Your task to perform on an android device: turn vacation reply on in the gmail app Image 0: 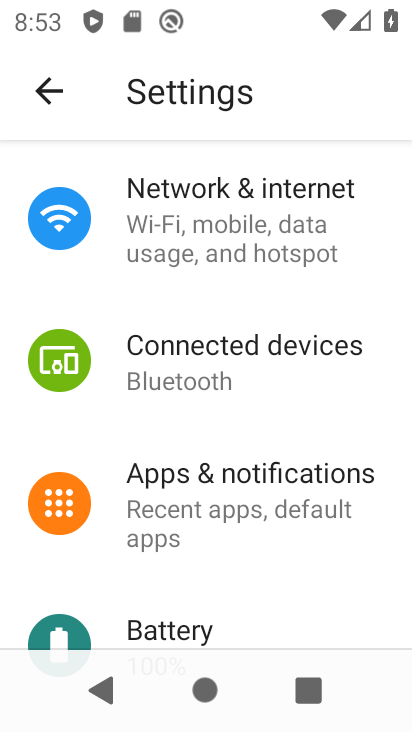
Step 0: press home button
Your task to perform on an android device: turn vacation reply on in the gmail app Image 1: 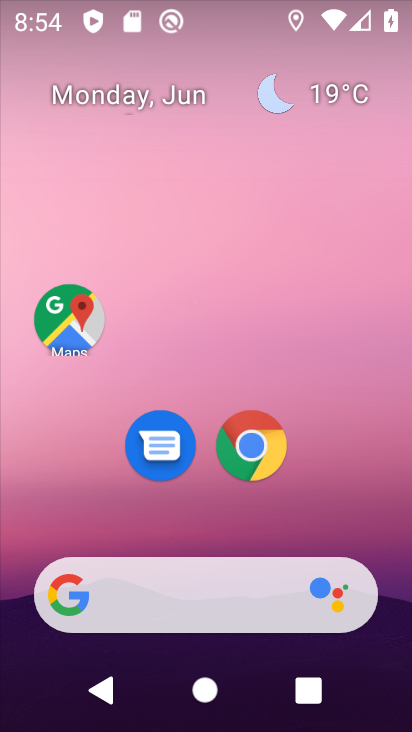
Step 1: drag from (199, 495) to (200, 33)
Your task to perform on an android device: turn vacation reply on in the gmail app Image 2: 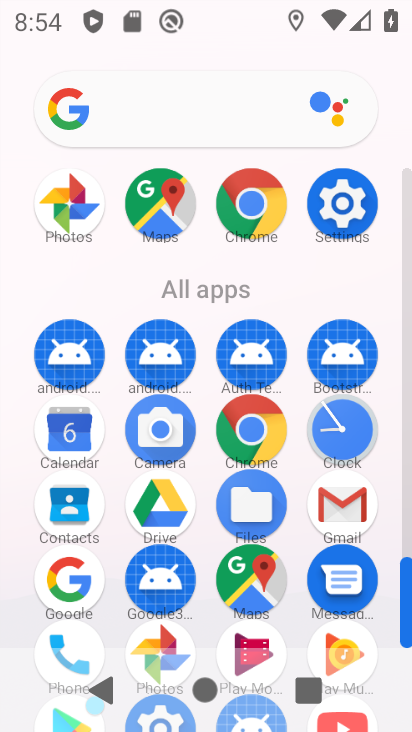
Step 2: click (334, 516)
Your task to perform on an android device: turn vacation reply on in the gmail app Image 3: 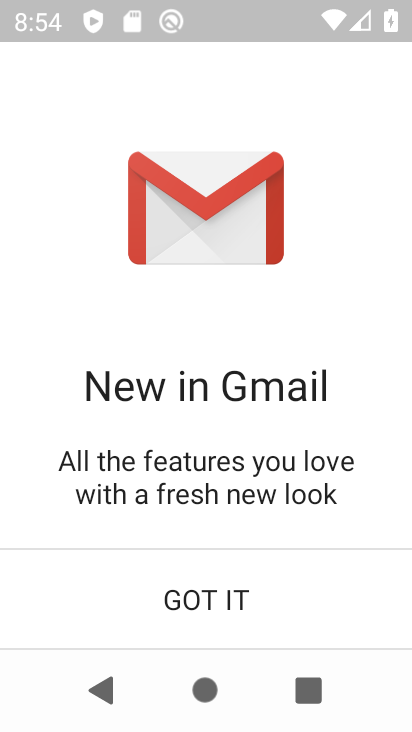
Step 3: click (243, 619)
Your task to perform on an android device: turn vacation reply on in the gmail app Image 4: 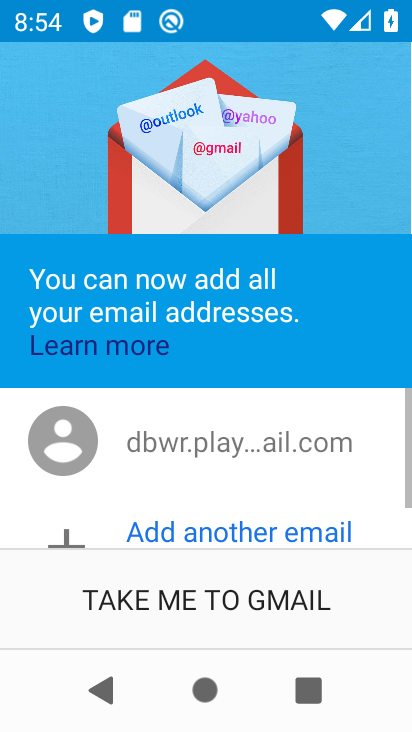
Step 4: click (230, 615)
Your task to perform on an android device: turn vacation reply on in the gmail app Image 5: 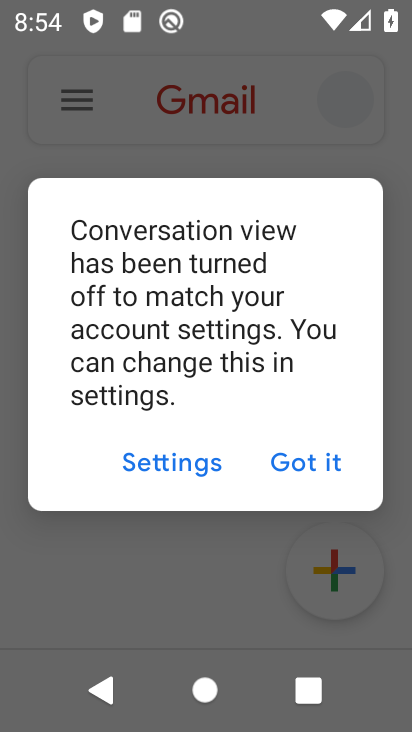
Step 5: click (284, 472)
Your task to perform on an android device: turn vacation reply on in the gmail app Image 6: 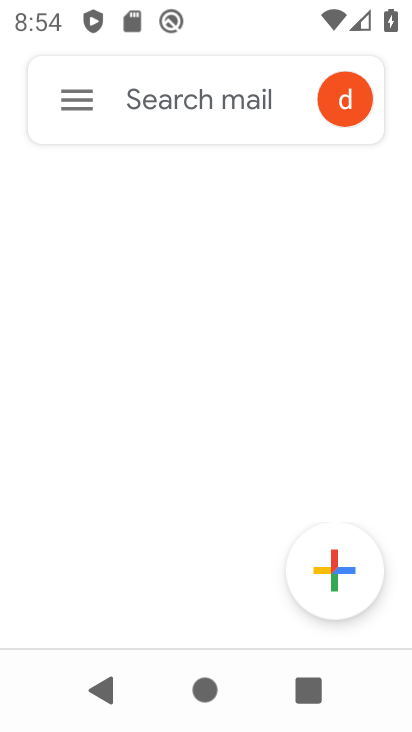
Step 6: click (72, 94)
Your task to perform on an android device: turn vacation reply on in the gmail app Image 7: 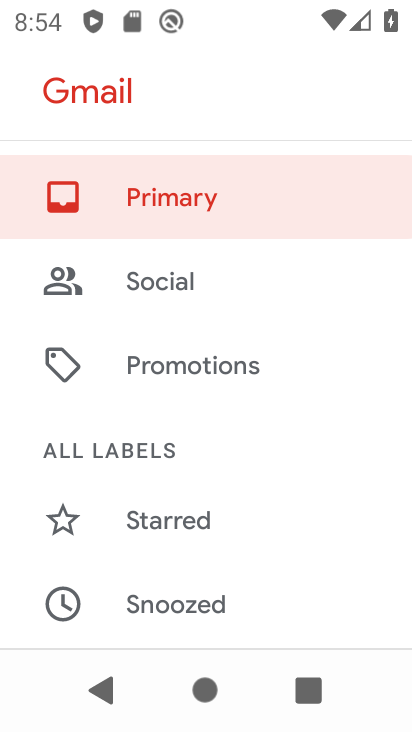
Step 7: drag from (193, 597) to (231, 68)
Your task to perform on an android device: turn vacation reply on in the gmail app Image 8: 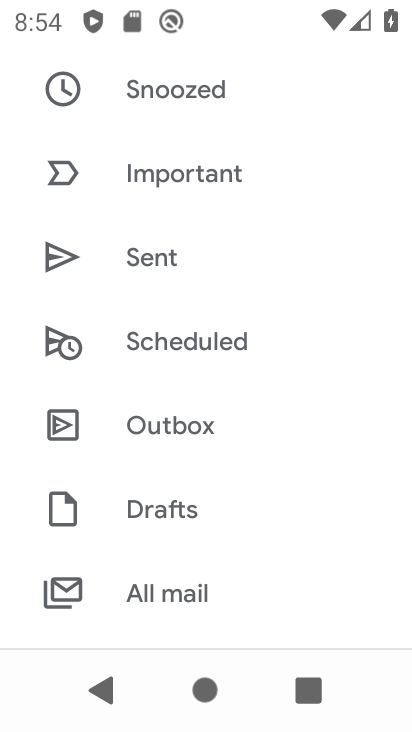
Step 8: drag from (206, 571) to (247, 27)
Your task to perform on an android device: turn vacation reply on in the gmail app Image 9: 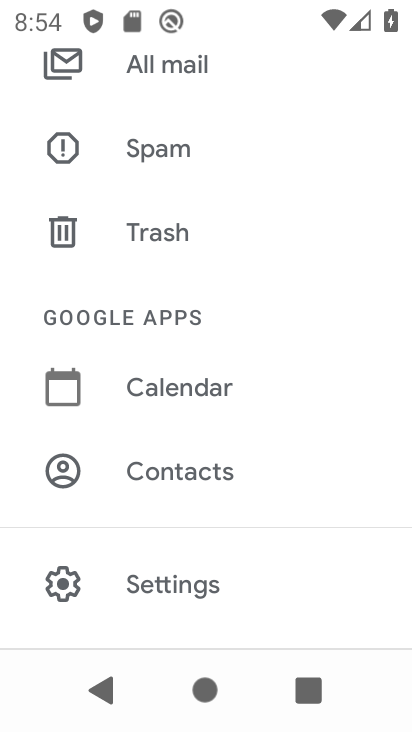
Step 9: drag from (201, 579) to (208, 83)
Your task to perform on an android device: turn vacation reply on in the gmail app Image 10: 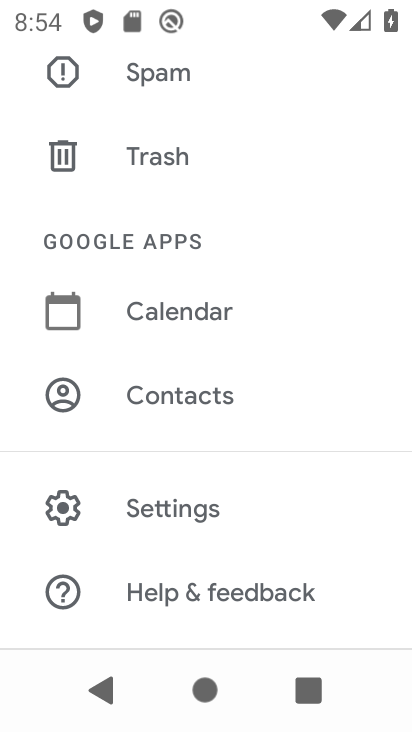
Step 10: click (173, 524)
Your task to perform on an android device: turn vacation reply on in the gmail app Image 11: 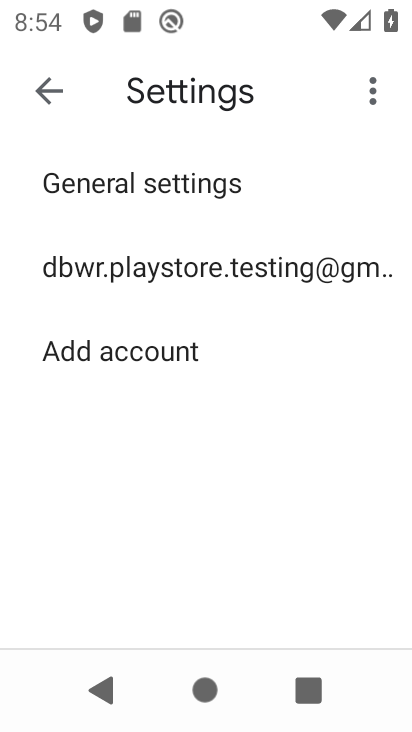
Step 11: click (253, 249)
Your task to perform on an android device: turn vacation reply on in the gmail app Image 12: 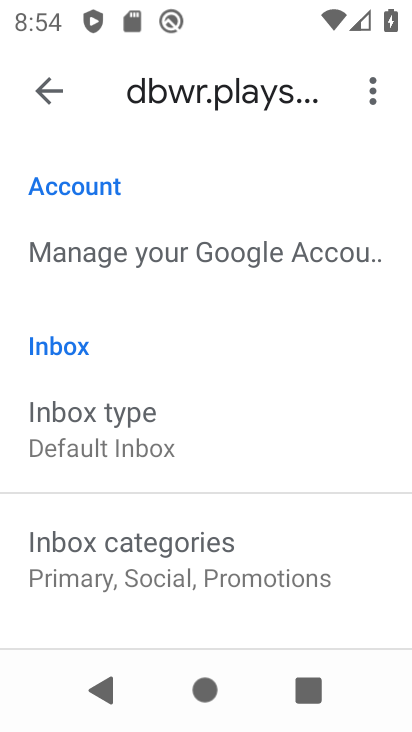
Step 12: drag from (243, 536) to (252, 59)
Your task to perform on an android device: turn vacation reply on in the gmail app Image 13: 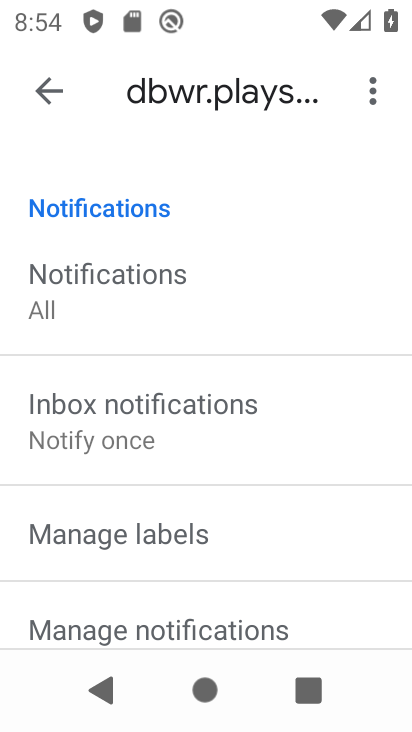
Step 13: drag from (238, 594) to (242, 90)
Your task to perform on an android device: turn vacation reply on in the gmail app Image 14: 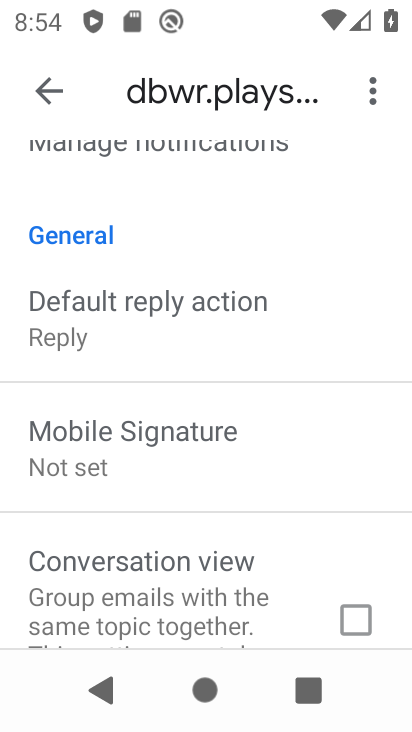
Step 14: drag from (220, 512) to (220, 101)
Your task to perform on an android device: turn vacation reply on in the gmail app Image 15: 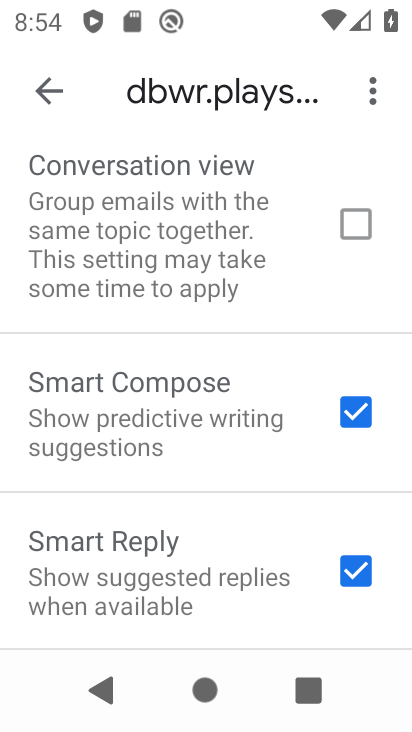
Step 15: drag from (205, 552) to (235, 157)
Your task to perform on an android device: turn vacation reply on in the gmail app Image 16: 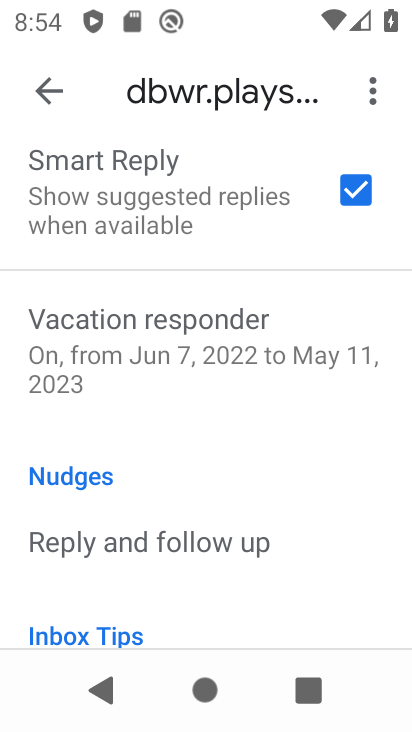
Step 16: click (174, 346)
Your task to perform on an android device: turn vacation reply on in the gmail app Image 17: 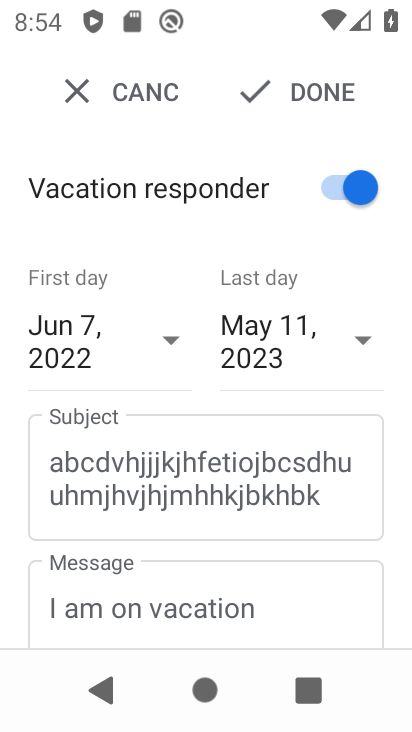
Step 17: task complete